Your task to perform on an android device: toggle priority inbox in the gmail app Image 0: 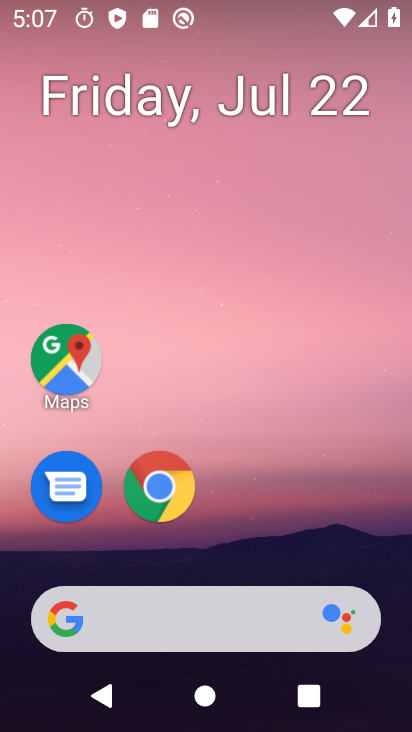
Step 0: drag from (282, 559) to (299, 39)
Your task to perform on an android device: toggle priority inbox in the gmail app Image 1: 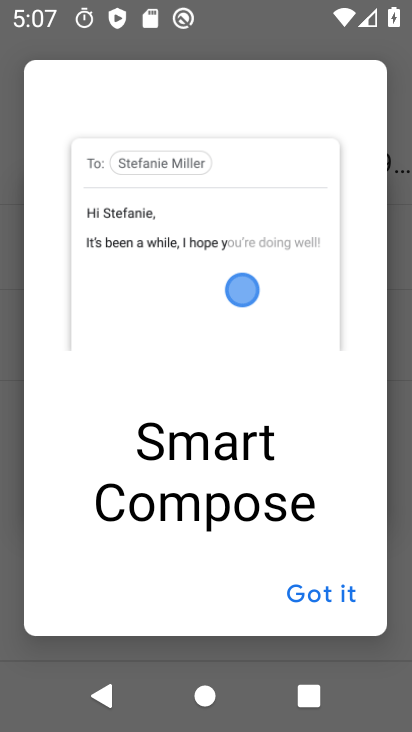
Step 1: click (345, 596)
Your task to perform on an android device: toggle priority inbox in the gmail app Image 2: 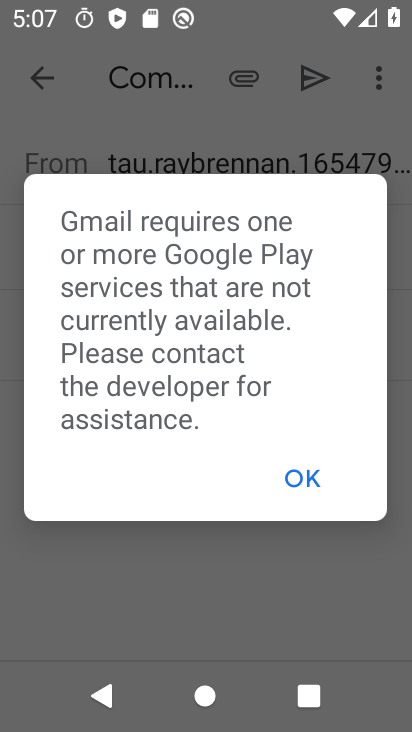
Step 2: click (314, 487)
Your task to perform on an android device: toggle priority inbox in the gmail app Image 3: 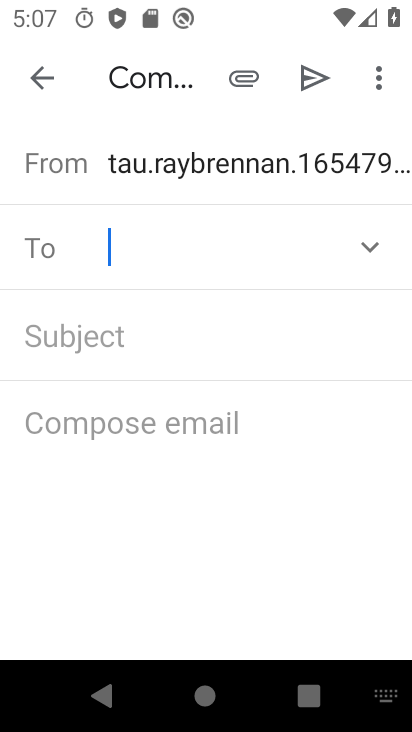
Step 3: press home button
Your task to perform on an android device: toggle priority inbox in the gmail app Image 4: 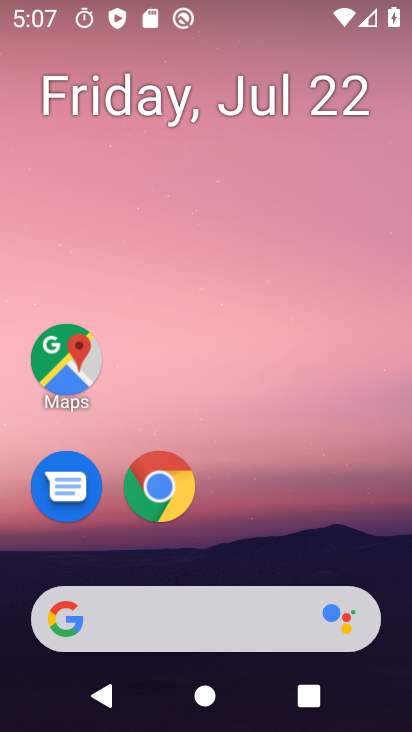
Step 4: drag from (341, 549) to (185, 36)
Your task to perform on an android device: toggle priority inbox in the gmail app Image 5: 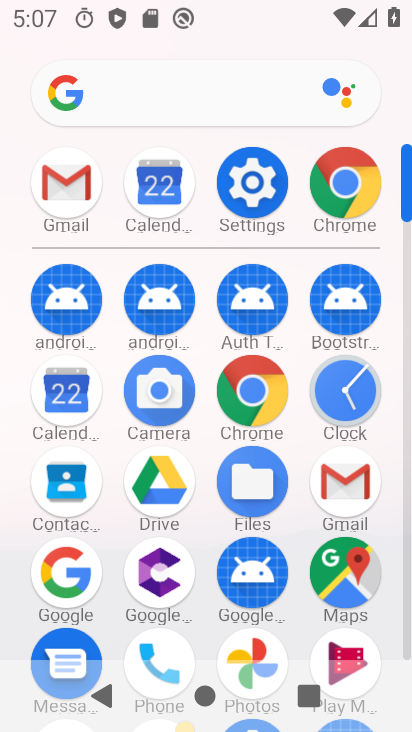
Step 5: click (70, 168)
Your task to perform on an android device: toggle priority inbox in the gmail app Image 6: 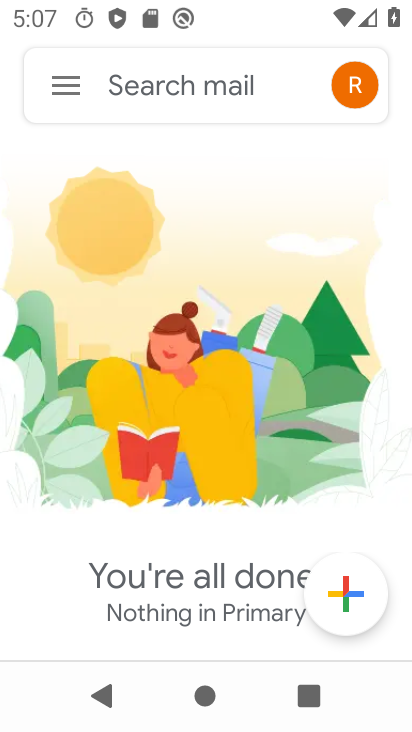
Step 6: click (47, 80)
Your task to perform on an android device: toggle priority inbox in the gmail app Image 7: 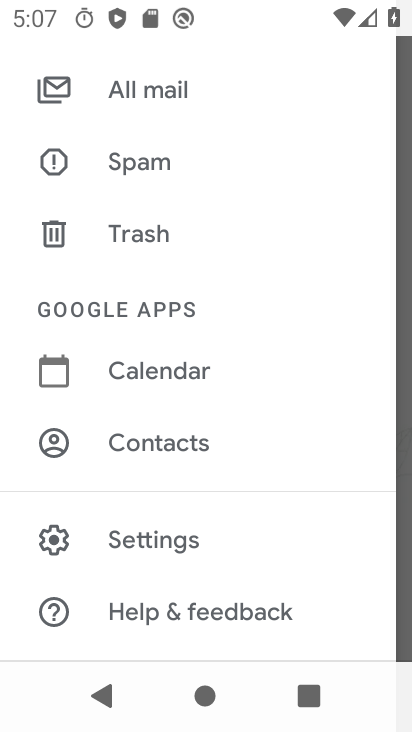
Step 7: click (133, 553)
Your task to perform on an android device: toggle priority inbox in the gmail app Image 8: 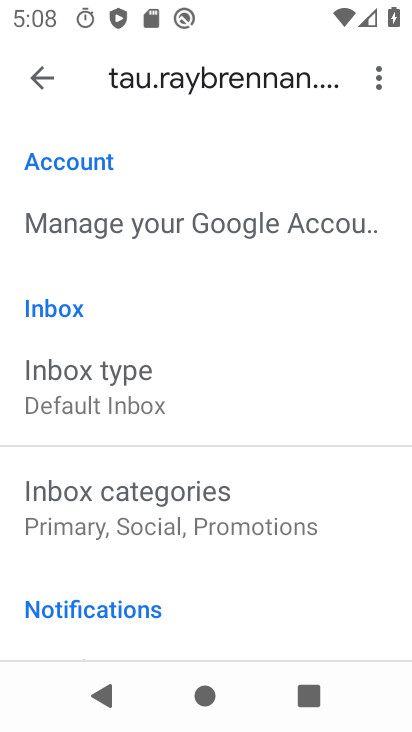
Step 8: click (144, 380)
Your task to perform on an android device: toggle priority inbox in the gmail app Image 9: 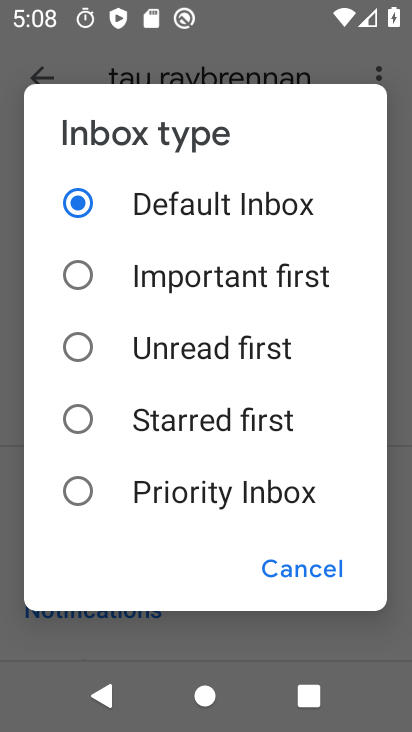
Step 9: click (224, 477)
Your task to perform on an android device: toggle priority inbox in the gmail app Image 10: 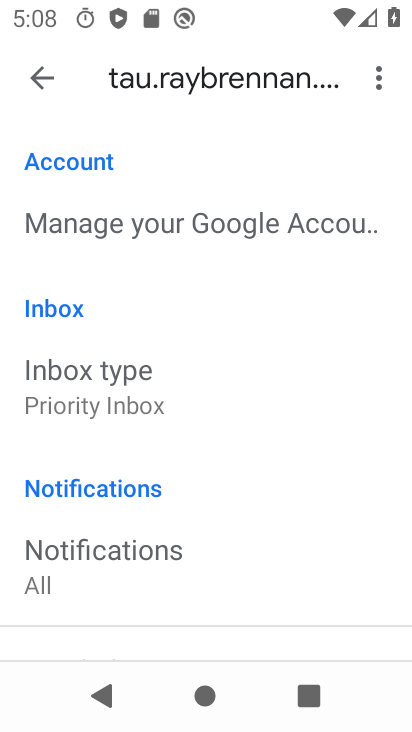
Step 10: task complete